Your task to perform on an android device: open app "Messages" (install if not already installed) and go to login screen Image 0: 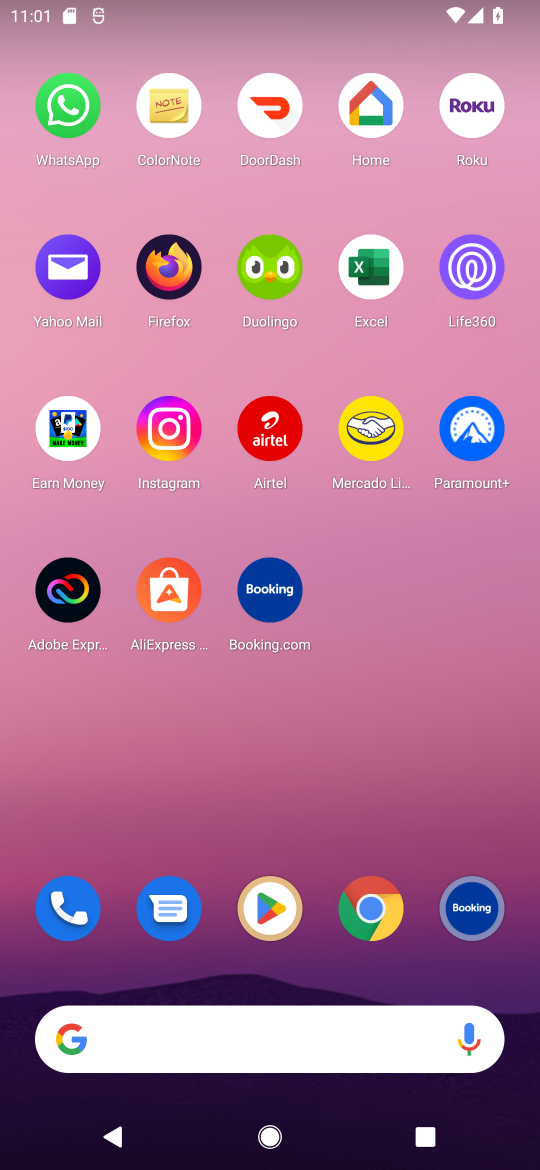
Step 0: click (169, 913)
Your task to perform on an android device: open app "Messages" (install if not already installed) and go to login screen Image 1: 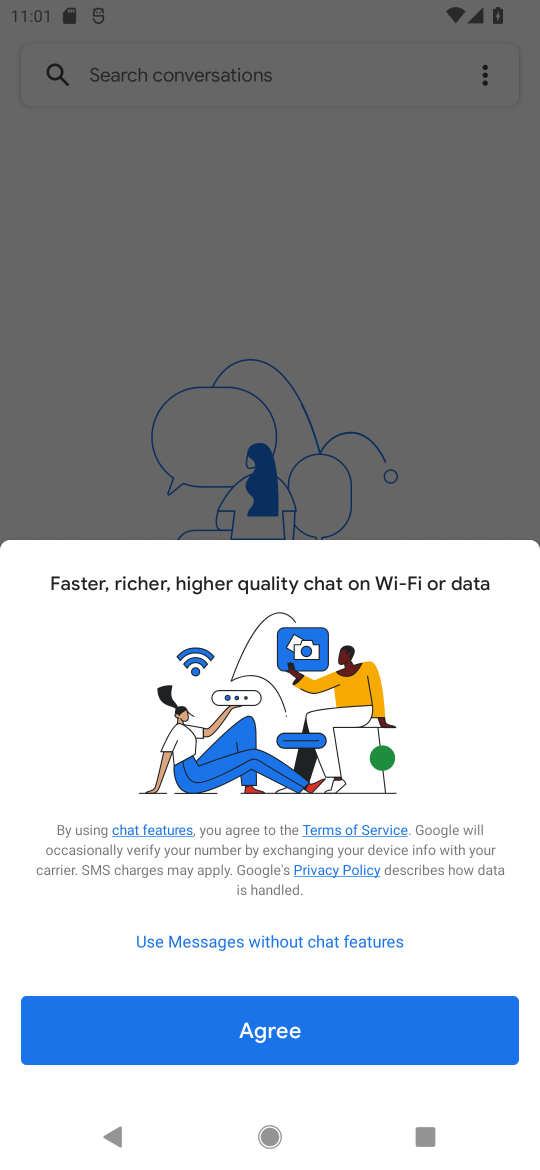
Step 1: click (208, 1030)
Your task to perform on an android device: open app "Messages" (install if not already installed) and go to login screen Image 2: 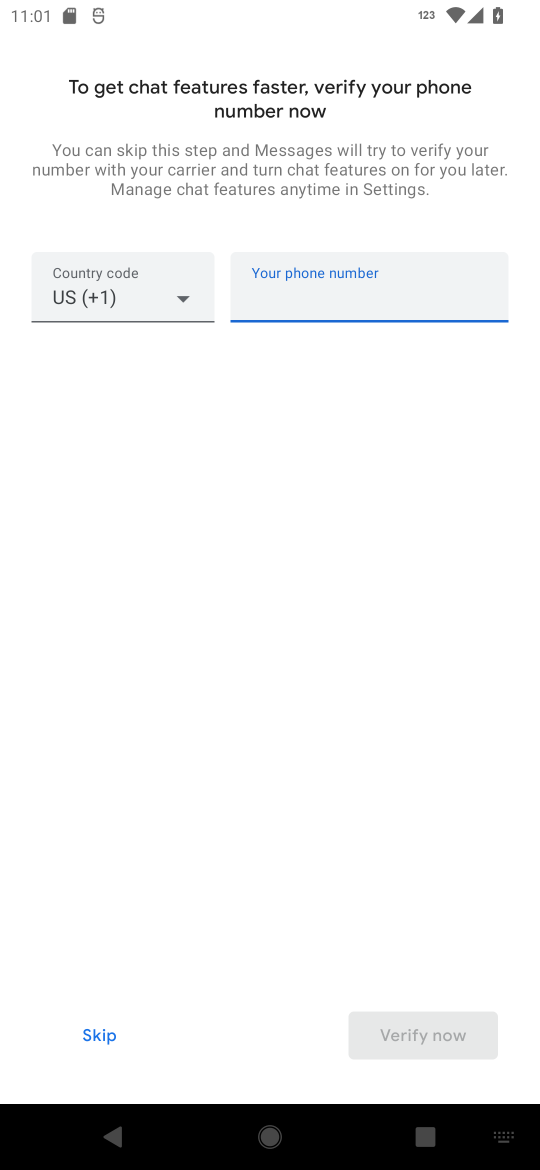
Step 2: click (482, 64)
Your task to perform on an android device: open app "Messages" (install if not already installed) and go to login screen Image 3: 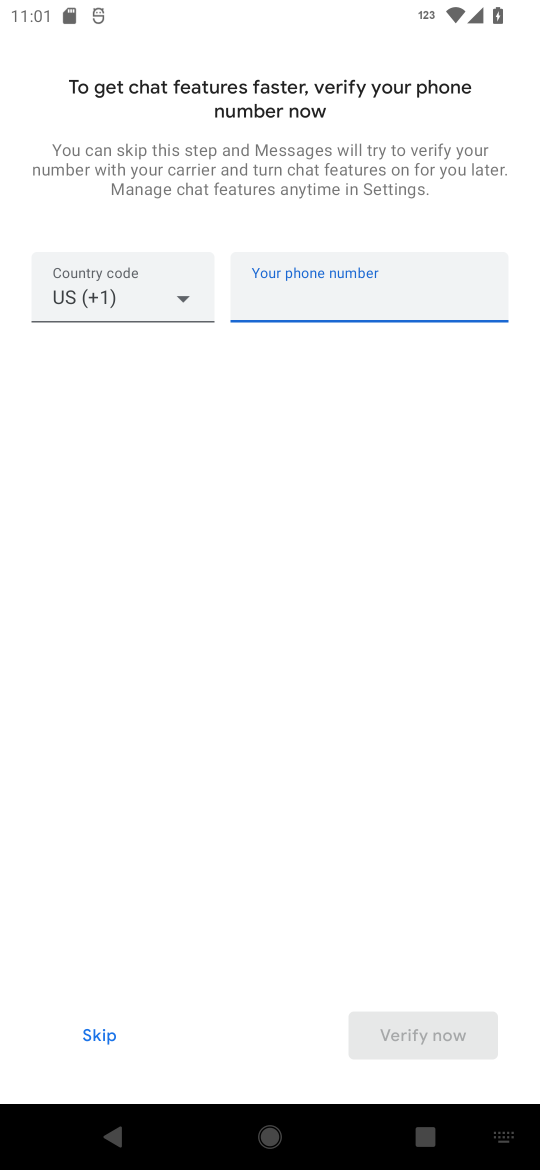
Step 3: task complete